Your task to perform on an android device: turn off data saver in the chrome app Image 0: 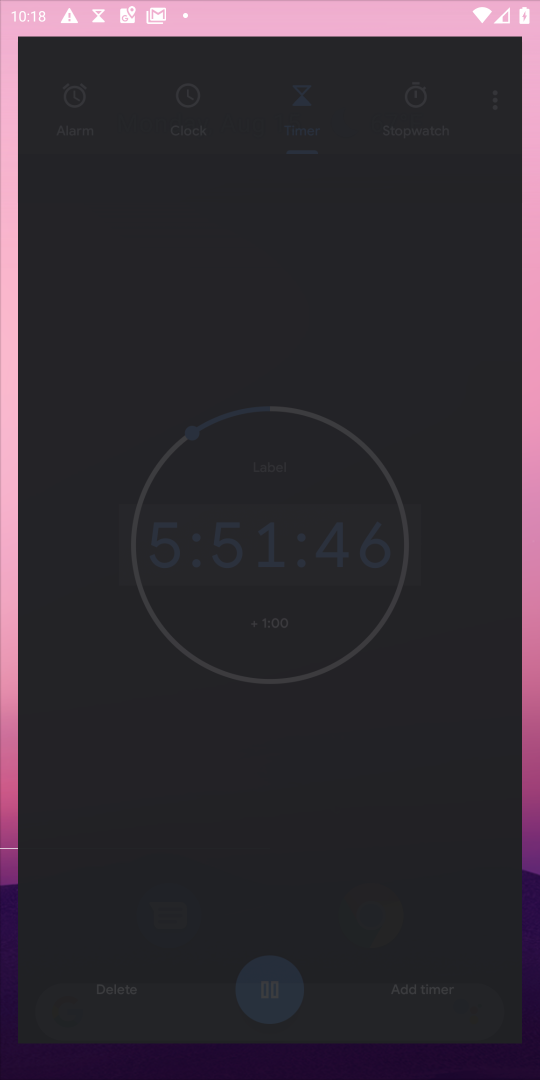
Step 0: press home button
Your task to perform on an android device: turn off data saver in the chrome app Image 1: 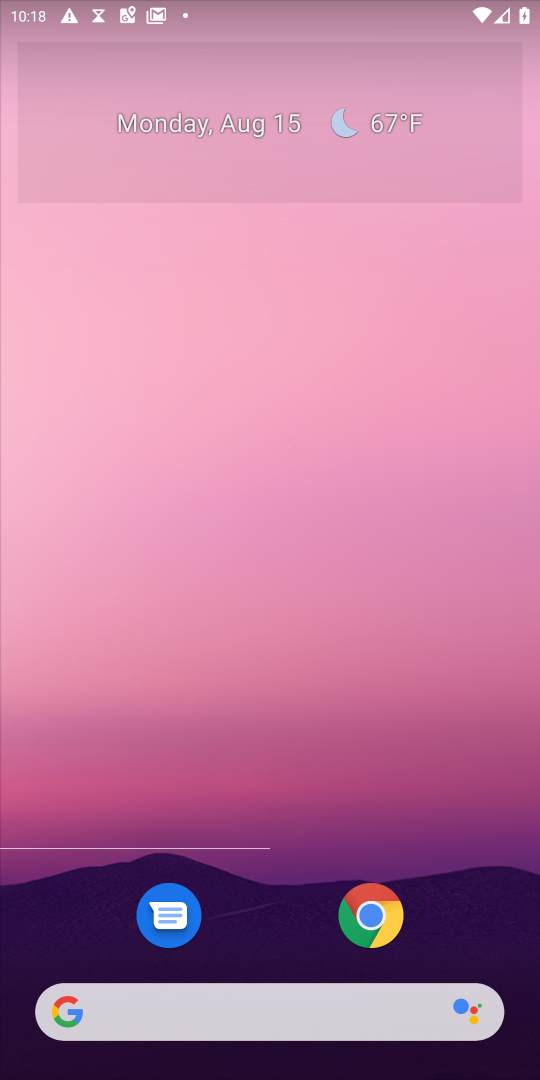
Step 1: click (376, 932)
Your task to perform on an android device: turn off data saver in the chrome app Image 2: 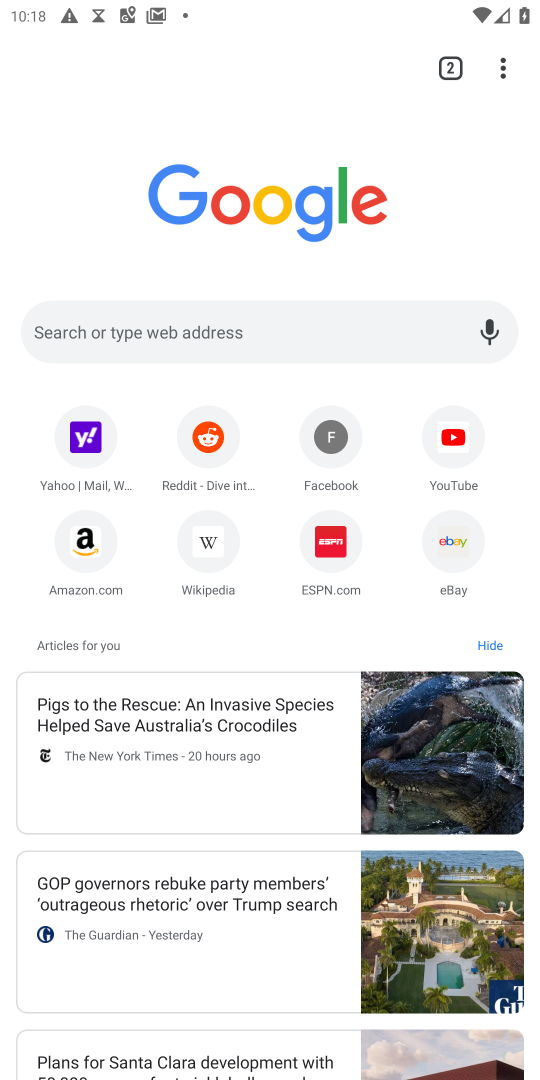
Step 2: drag from (503, 73) to (254, 574)
Your task to perform on an android device: turn off data saver in the chrome app Image 3: 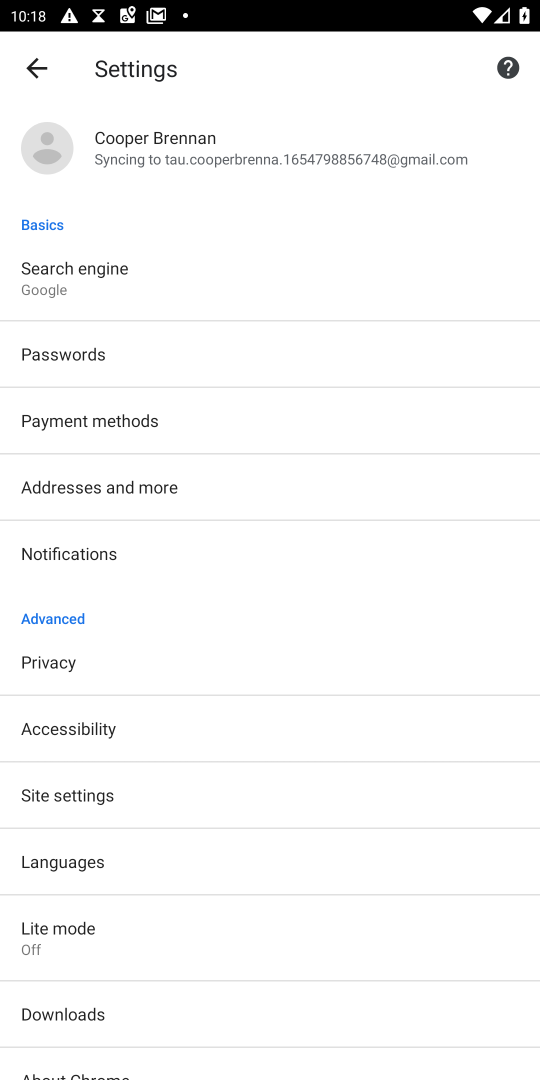
Step 3: click (60, 942)
Your task to perform on an android device: turn off data saver in the chrome app Image 4: 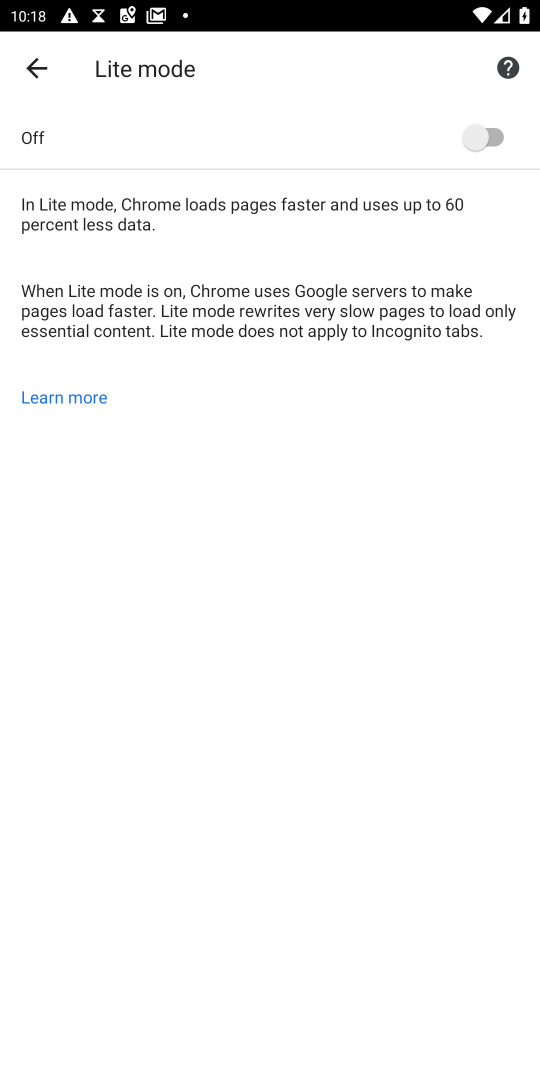
Step 4: task complete